Your task to perform on an android device: turn on improve location accuracy Image 0: 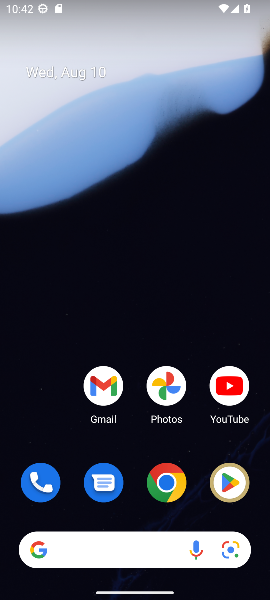
Step 0: drag from (114, 325) to (133, 56)
Your task to perform on an android device: turn on improve location accuracy Image 1: 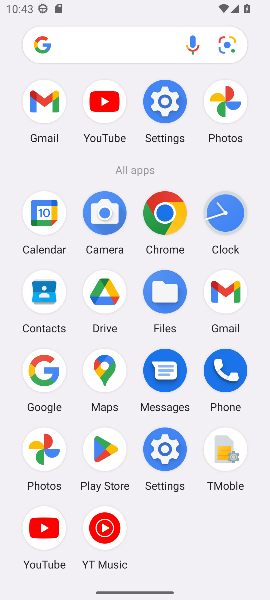
Step 1: click (166, 113)
Your task to perform on an android device: turn on improve location accuracy Image 2: 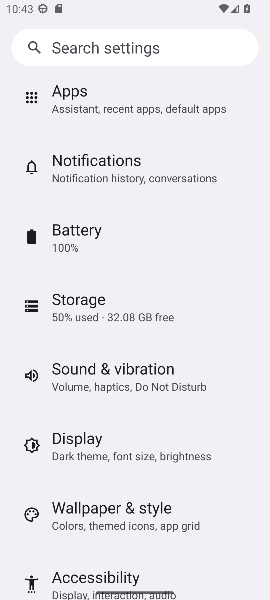
Step 2: task complete